Your task to perform on an android device: Do I have any events tomorrow? Image 0: 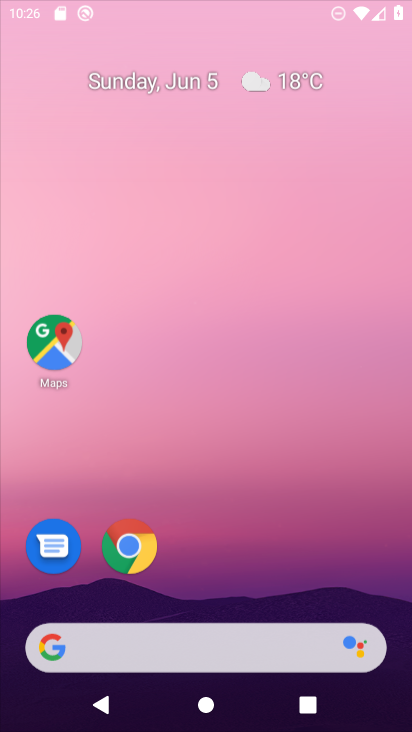
Step 0: press home button
Your task to perform on an android device: Do I have any events tomorrow? Image 1: 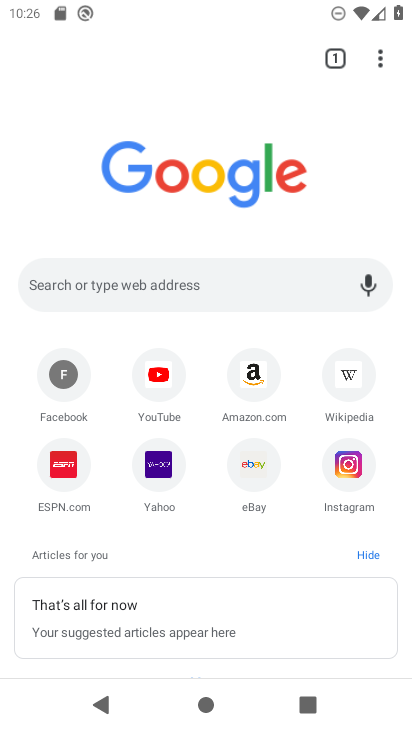
Step 1: drag from (251, 13) to (123, 17)
Your task to perform on an android device: Do I have any events tomorrow? Image 2: 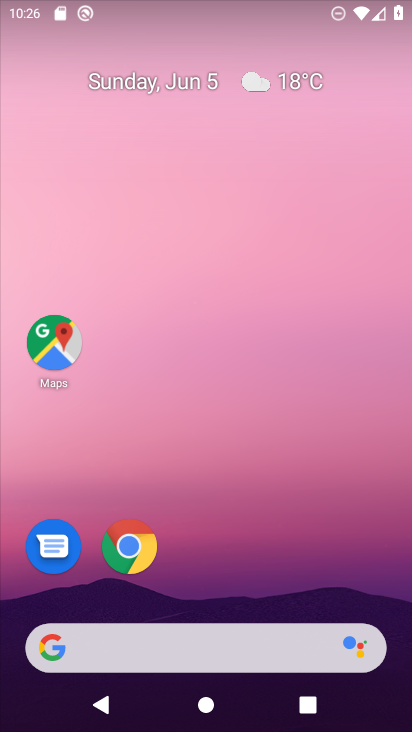
Step 2: drag from (225, 574) to (247, 245)
Your task to perform on an android device: Do I have any events tomorrow? Image 3: 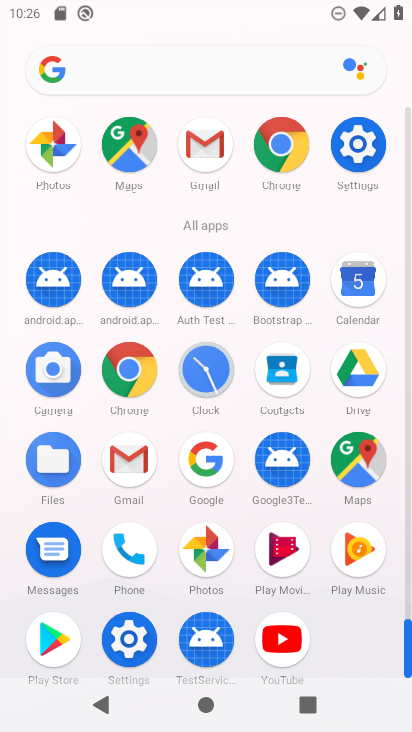
Step 3: click (359, 278)
Your task to perform on an android device: Do I have any events tomorrow? Image 4: 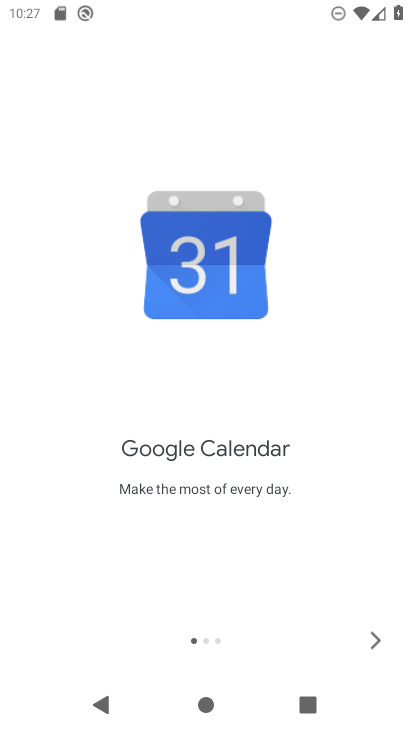
Step 4: click (375, 637)
Your task to perform on an android device: Do I have any events tomorrow? Image 5: 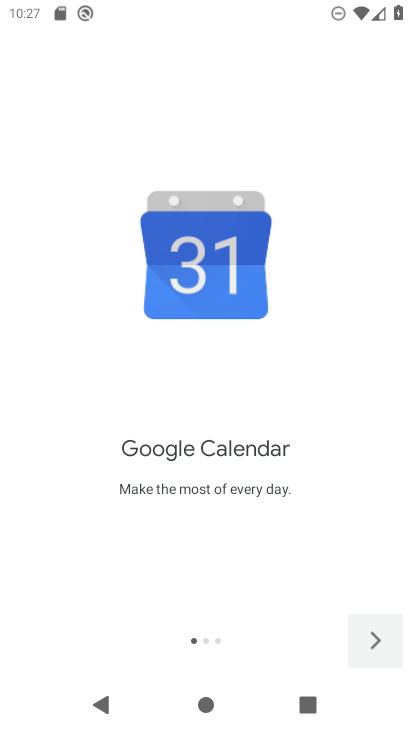
Step 5: click (375, 637)
Your task to perform on an android device: Do I have any events tomorrow? Image 6: 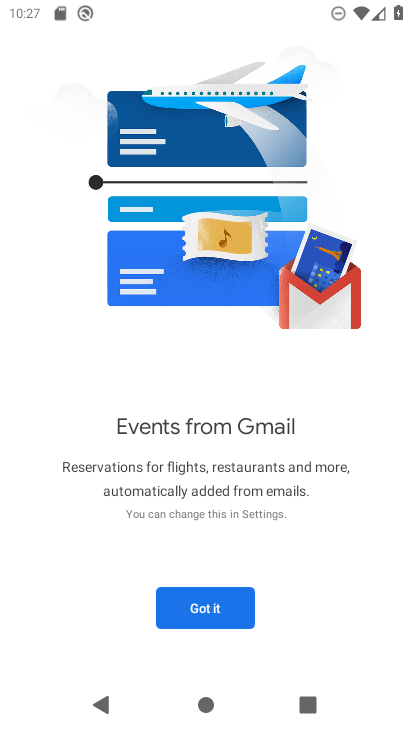
Step 6: click (191, 602)
Your task to perform on an android device: Do I have any events tomorrow? Image 7: 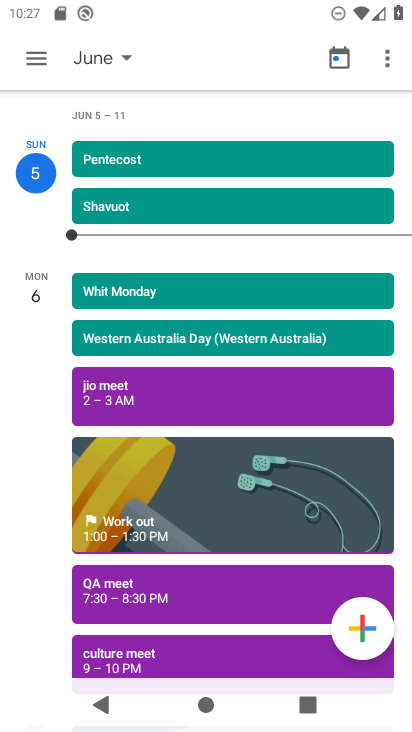
Step 7: click (104, 61)
Your task to perform on an android device: Do I have any events tomorrow? Image 8: 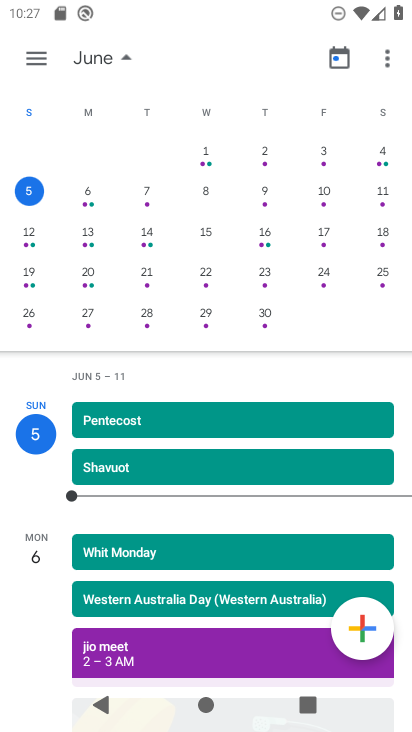
Step 8: click (83, 193)
Your task to perform on an android device: Do I have any events tomorrow? Image 9: 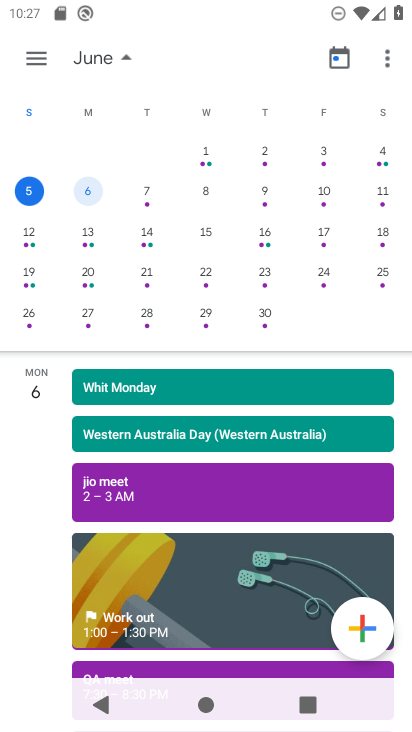
Step 9: task complete